Your task to perform on an android device: Open Chrome and go to the settings page Image 0: 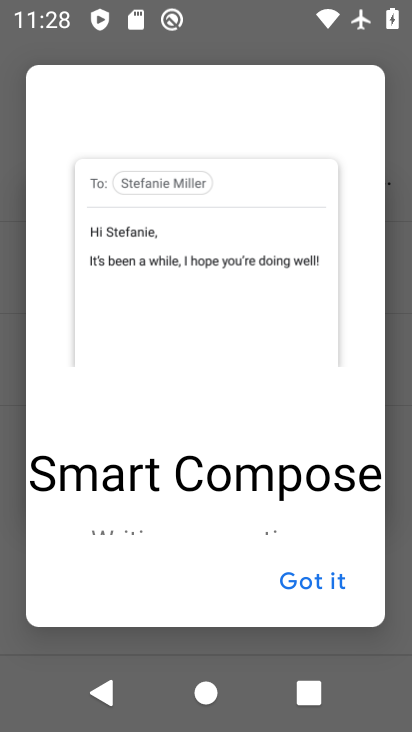
Step 0: press home button
Your task to perform on an android device: Open Chrome and go to the settings page Image 1: 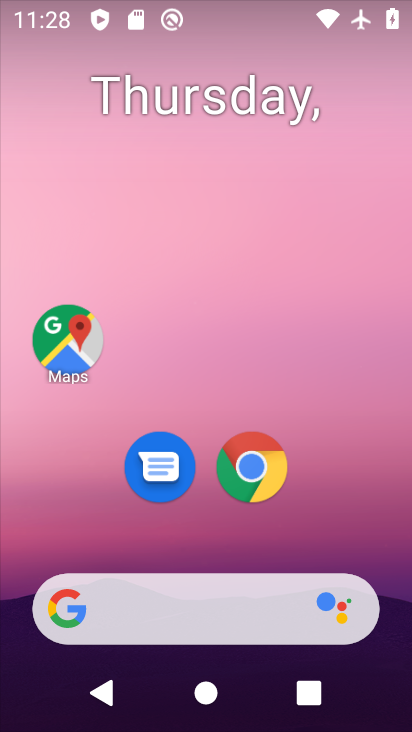
Step 1: click (262, 470)
Your task to perform on an android device: Open Chrome and go to the settings page Image 2: 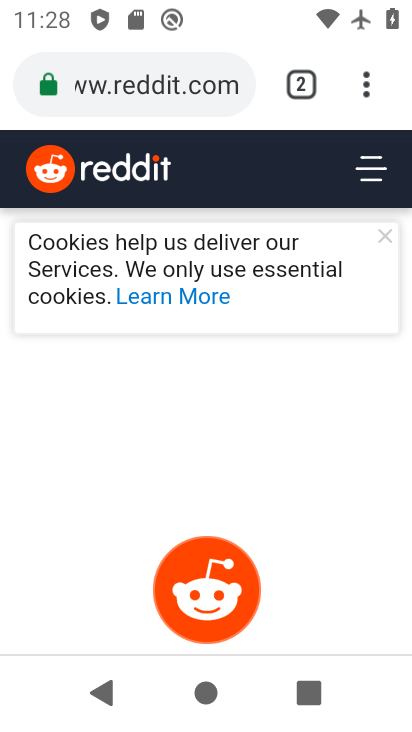
Step 2: click (363, 91)
Your task to perform on an android device: Open Chrome and go to the settings page Image 3: 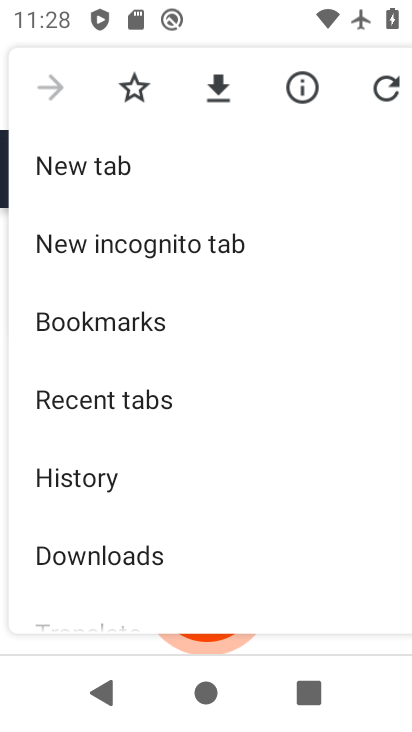
Step 3: drag from (171, 496) to (144, 158)
Your task to perform on an android device: Open Chrome and go to the settings page Image 4: 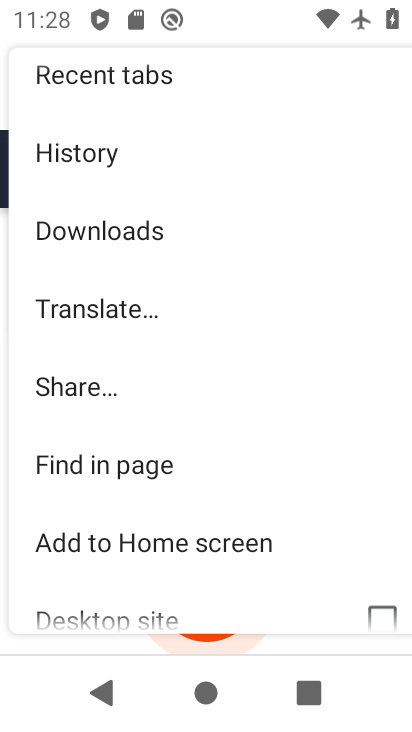
Step 4: drag from (134, 508) to (111, 105)
Your task to perform on an android device: Open Chrome and go to the settings page Image 5: 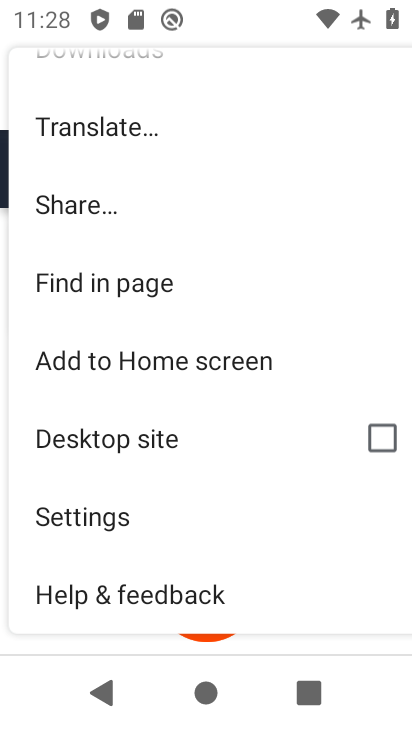
Step 5: click (99, 517)
Your task to perform on an android device: Open Chrome and go to the settings page Image 6: 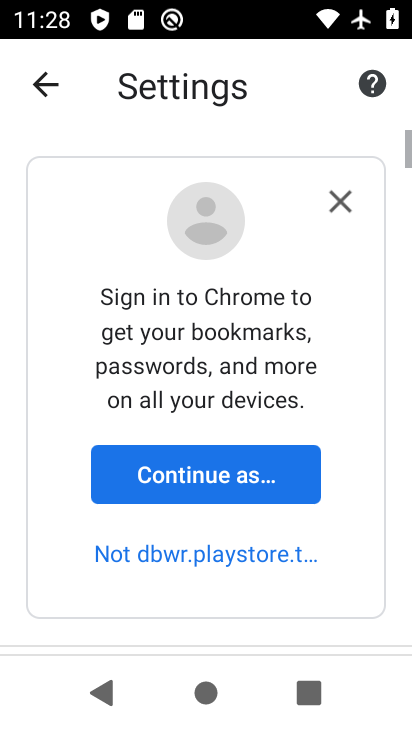
Step 6: task complete